Your task to perform on an android device: turn off improve location accuracy Image 0: 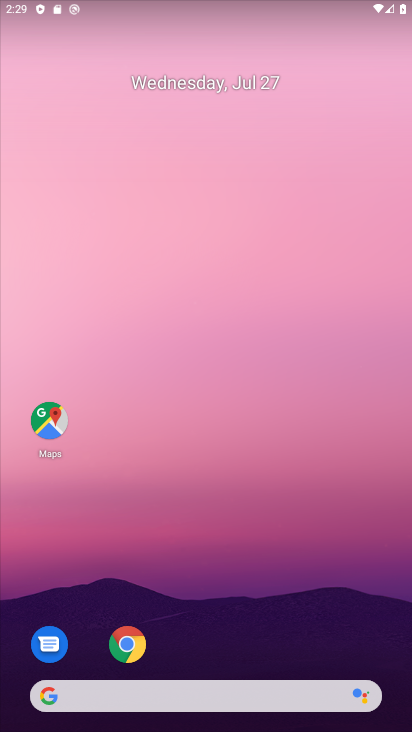
Step 0: drag from (204, 571) to (244, 13)
Your task to perform on an android device: turn off improve location accuracy Image 1: 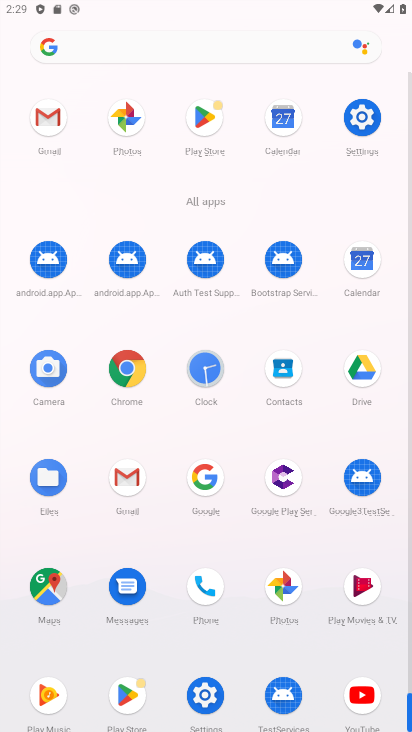
Step 1: click (201, 689)
Your task to perform on an android device: turn off improve location accuracy Image 2: 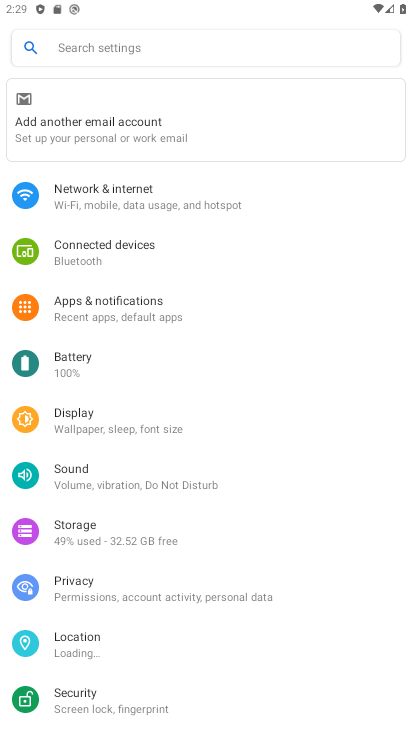
Step 2: click (96, 652)
Your task to perform on an android device: turn off improve location accuracy Image 3: 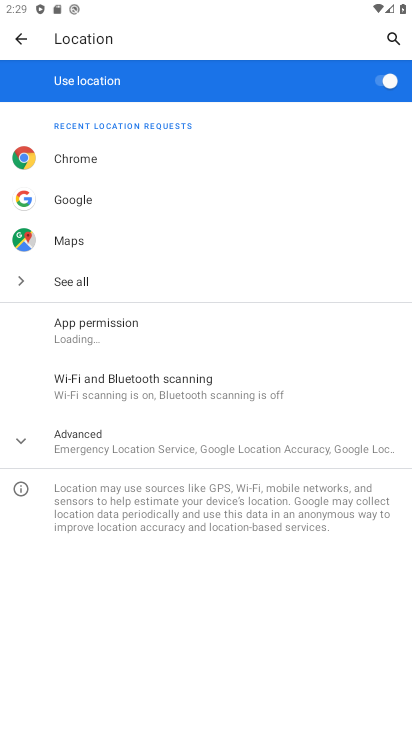
Step 3: click (127, 437)
Your task to perform on an android device: turn off improve location accuracy Image 4: 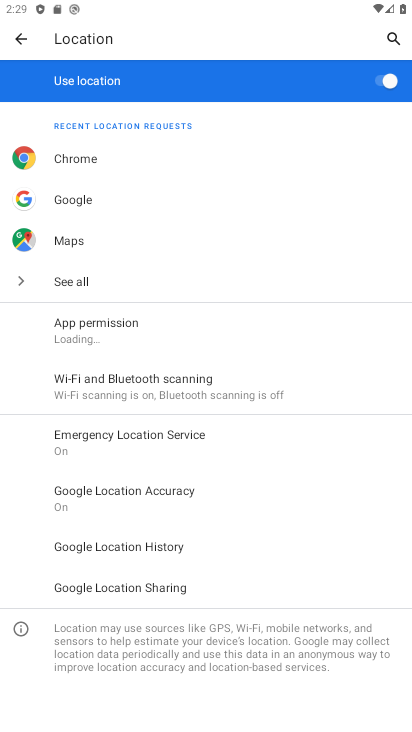
Step 4: click (158, 497)
Your task to perform on an android device: turn off improve location accuracy Image 5: 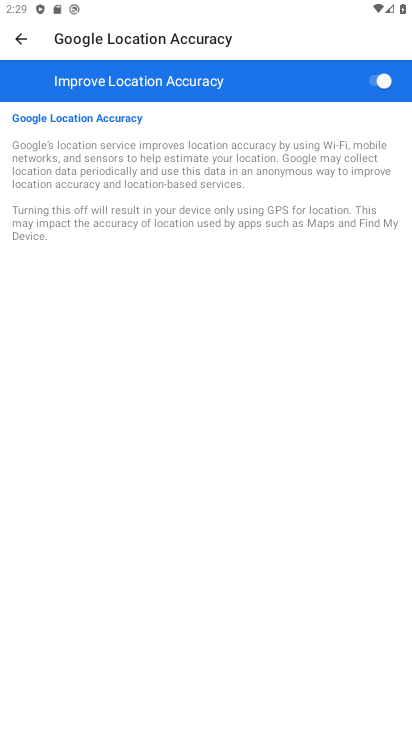
Step 5: click (352, 85)
Your task to perform on an android device: turn off improve location accuracy Image 6: 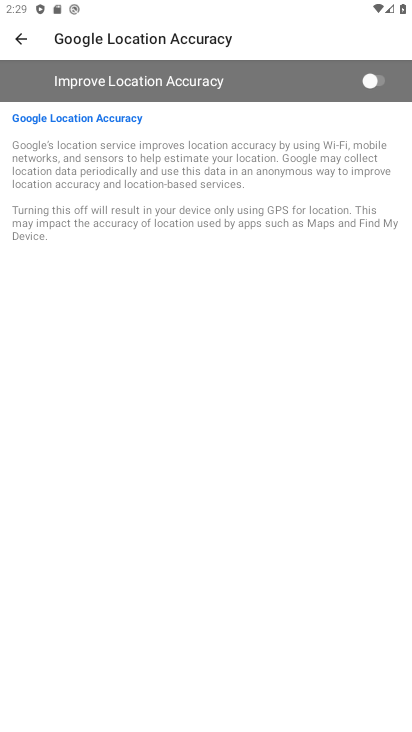
Step 6: task complete